Your task to perform on an android device: toggle wifi Image 0: 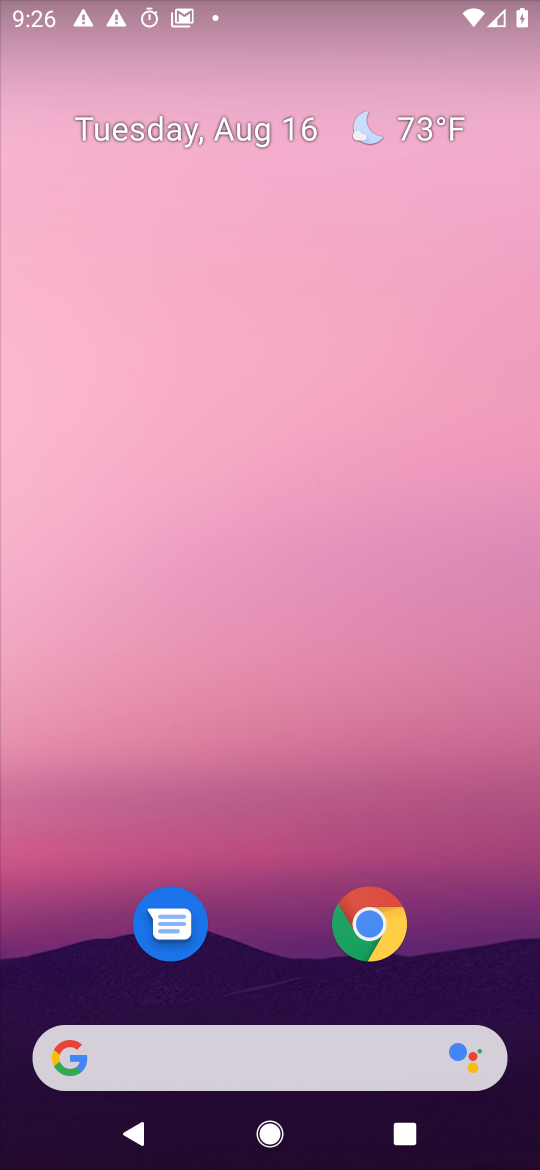
Step 0: drag from (233, 76) to (378, 835)
Your task to perform on an android device: toggle wifi Image 1: 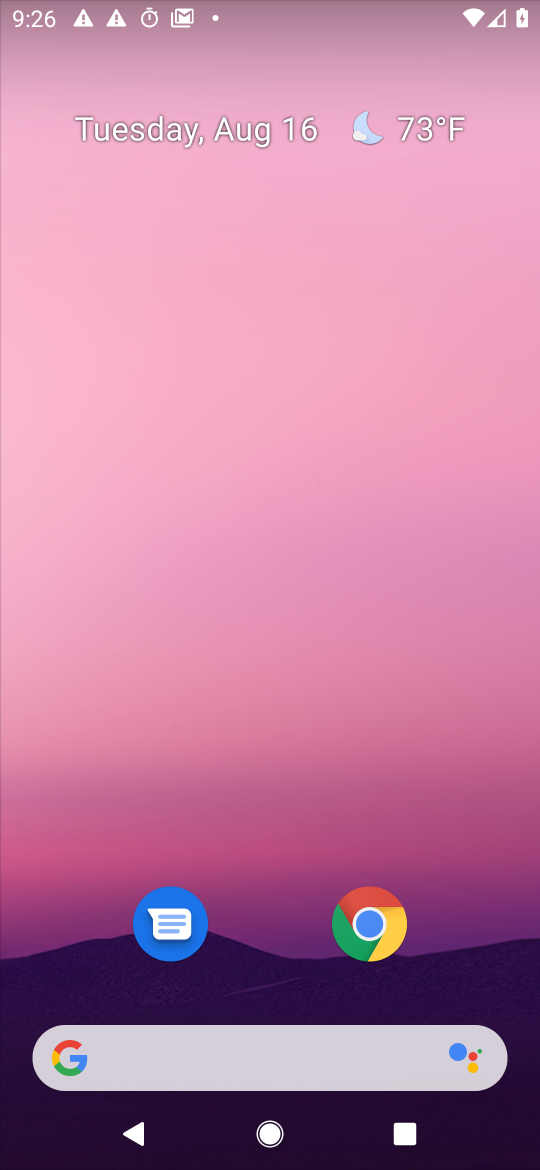
Step 1: drag from (195, 9) to (328, 807)
Your task to perform on an android device: toggle wifi Image 2: 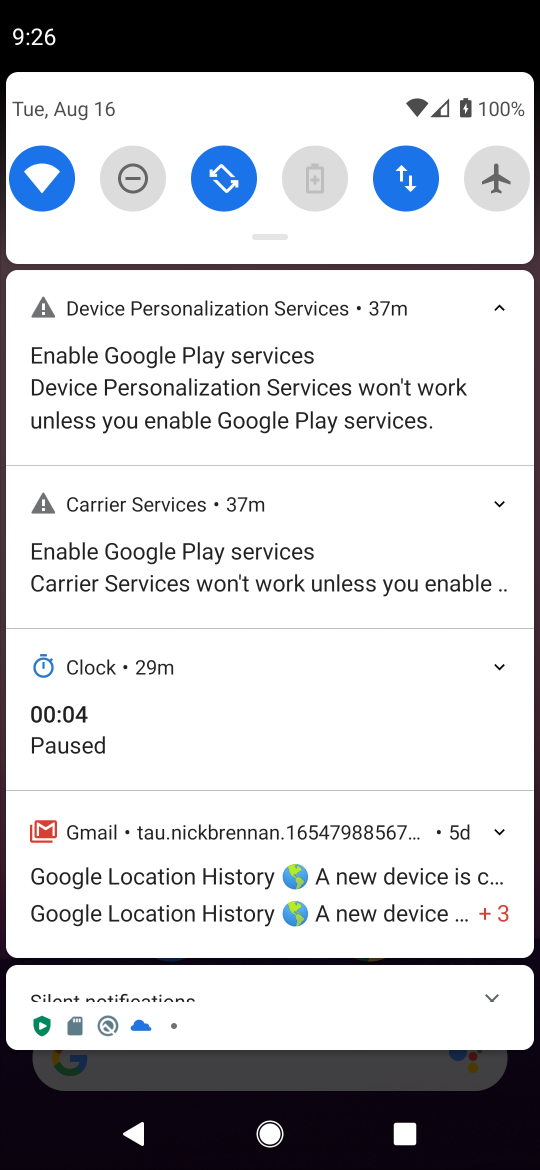
Step 2: click (43, 176)
Your task to perform on an android device: toggle wifi Image 3: 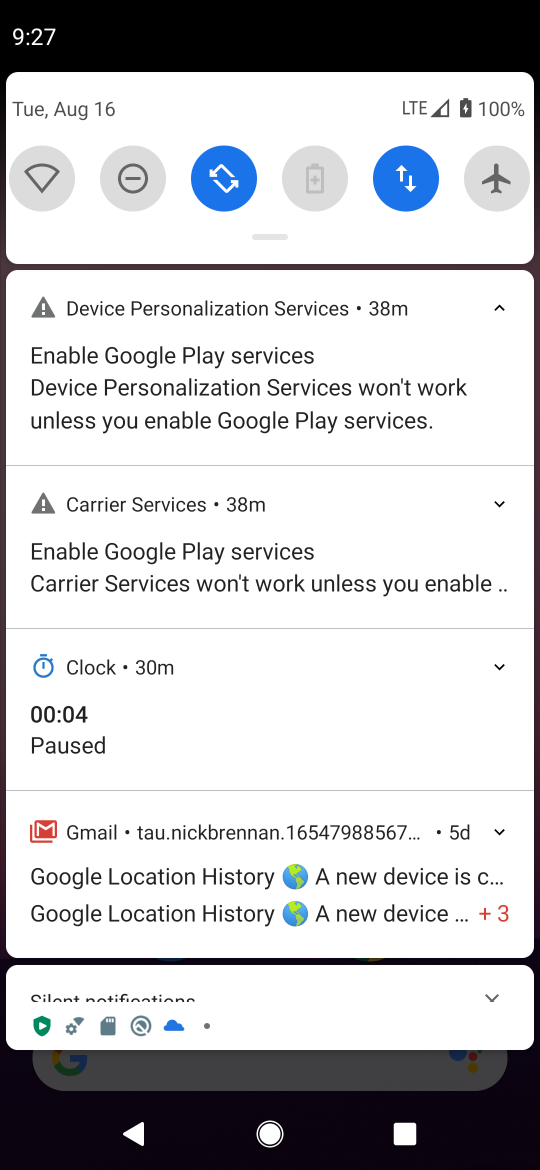
Step 3: task complete